Your task to perform on an android device: Open wifi settings Image 0: 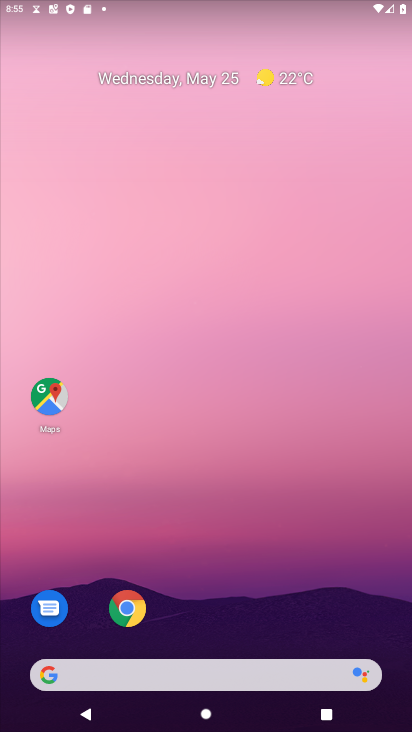
Step 0: drag from (227, 588) to (236, 45)
Your task to perform on an android device: Open wifi settings Image 1: 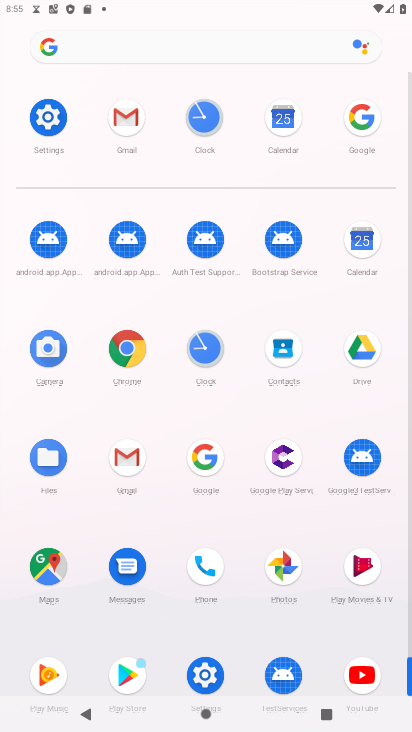
Step 1: click (48, 115)
Your task to perform on an android device: Open wifi settings Image 2: 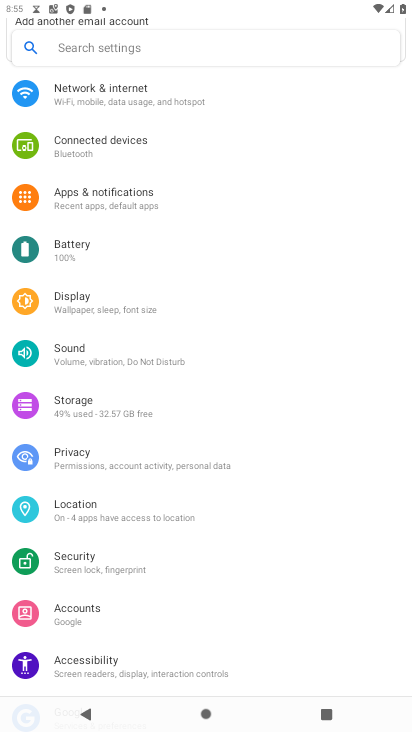
Step 2: click (98, 89)
Your task to perform on an android device: Open wifi settings Image 3: 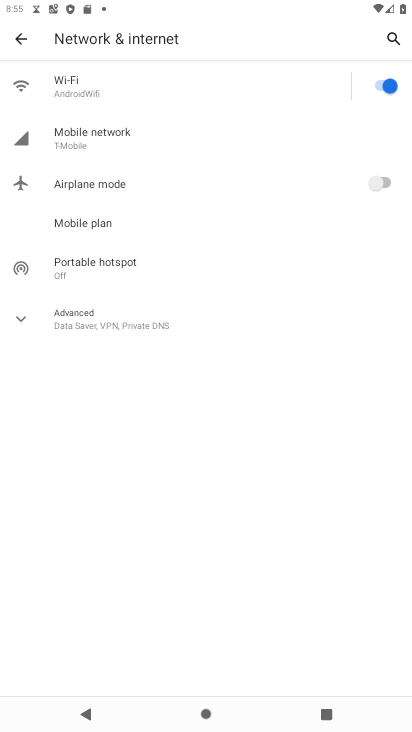
Step 3: click (77, 85)
Your task to perform on an android device: Open wifi settings Image 4: 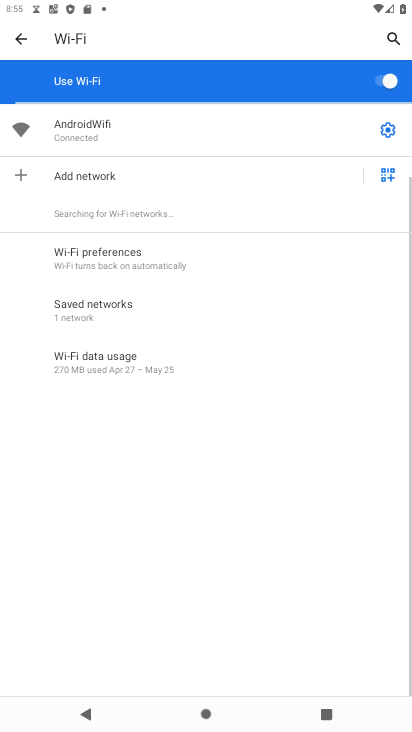
Step 4: click (86, 131)
Your task to perform on an android device: Open wifi settings Image 5: 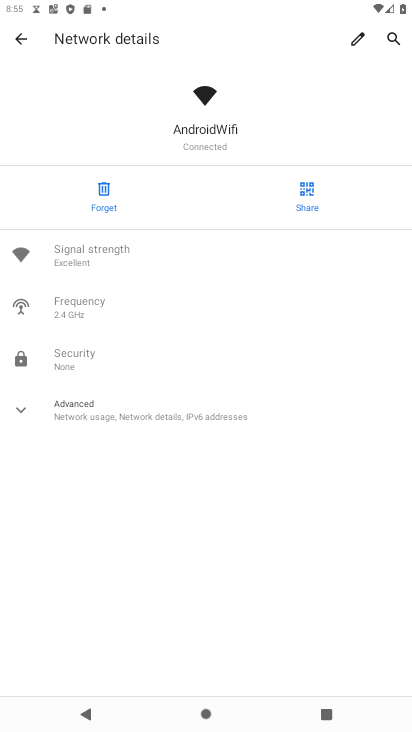
Step 5: task complete